Your task to perform on an android device: set default search engine in the chrome app Image 0: 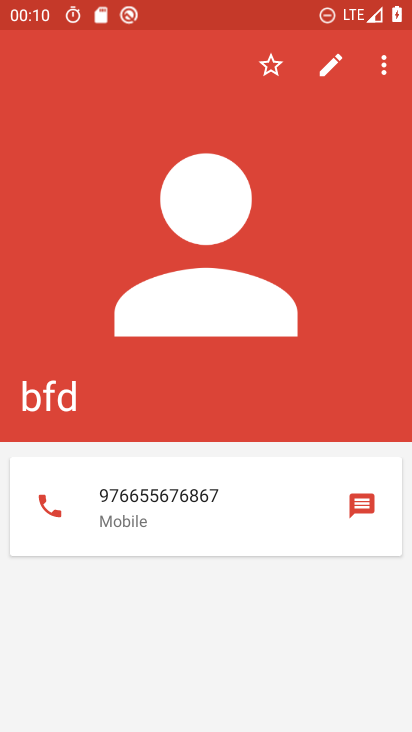
Step 0: press home button
Your task to perform on an android device: set default search engine in the chrome app Image 1: 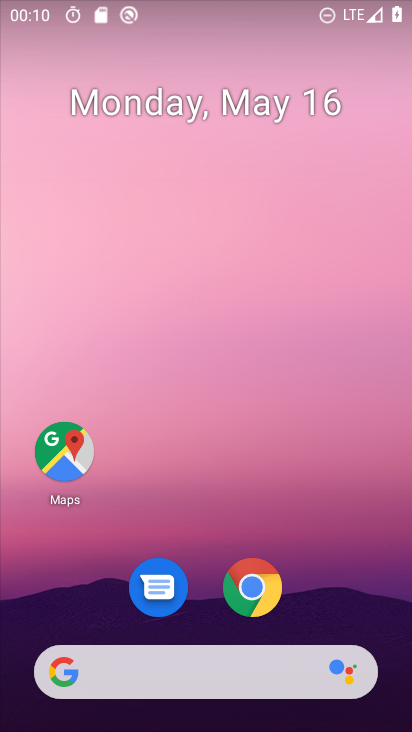
Step 1: click (243, 580)
Your task to perform on an android device: set default search engine in the chrome app Image 2: 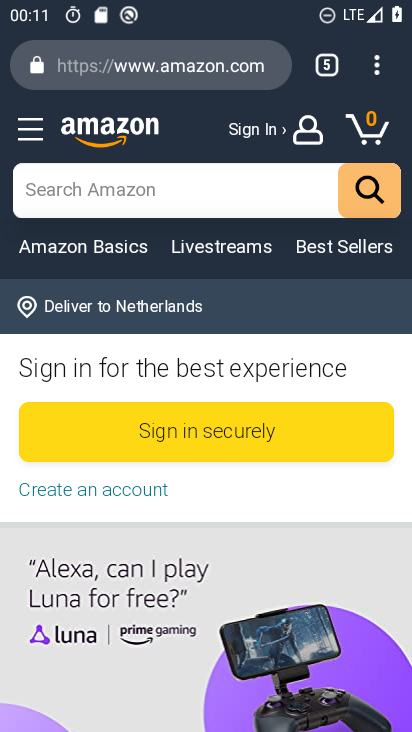
Step 2: drag from (379, 62) to (229, 642)
Your task to perform on an android device: set default search engine in the chrome app Image 3: 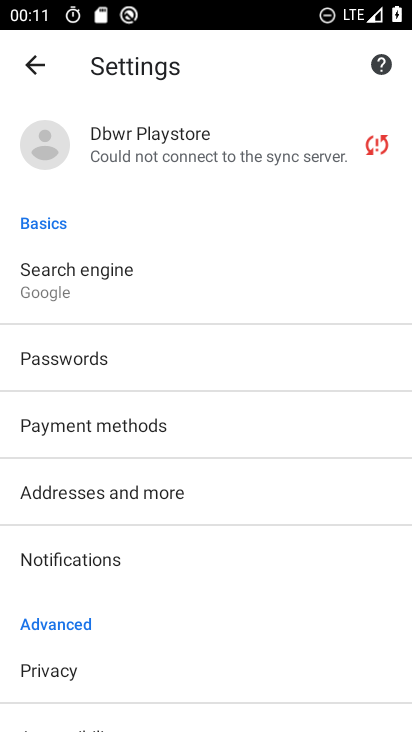
Step 3: click (87, 293)
Your task to perform on an android device: set default search engine in the chrome app Image 4: 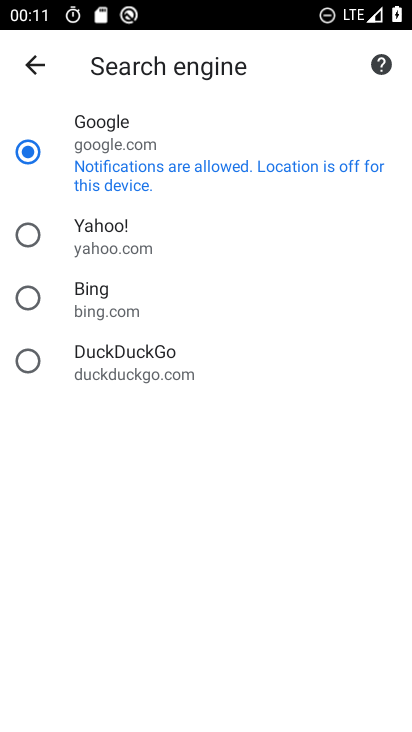
Step 4: click (77, 296)
Your task to perform on an android device: set default search engine in the chrome app Image 5: 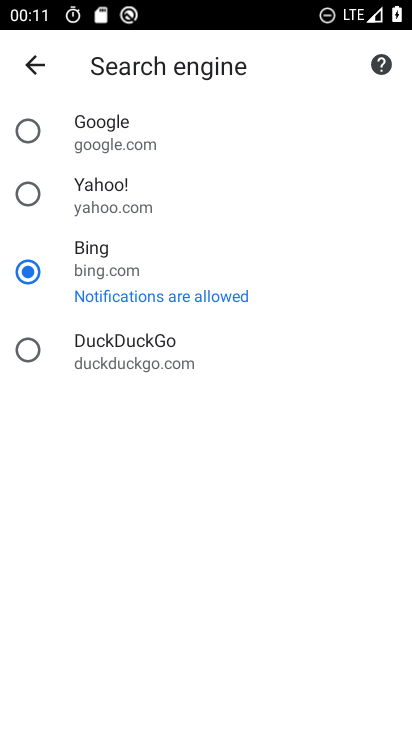
Step 5: task complete